Your task to perform on an android device: open the mobile data screen to see how much data has been used Image 0: 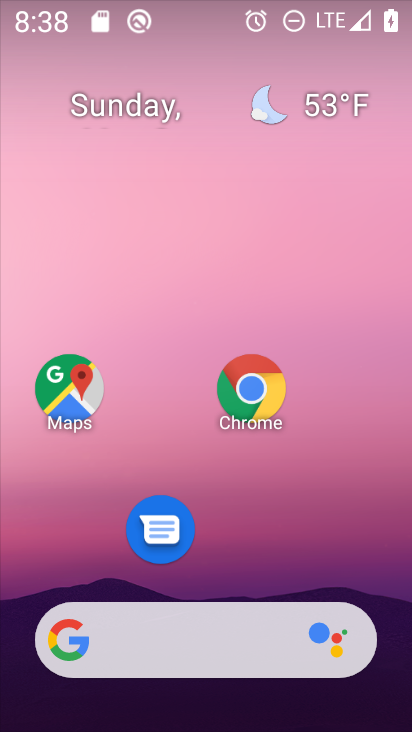
Step 0: drag from (221, 572) to (256, 67)
Your task to perform on an android device: open the mobile data screen to see how much data has been used Image 1: 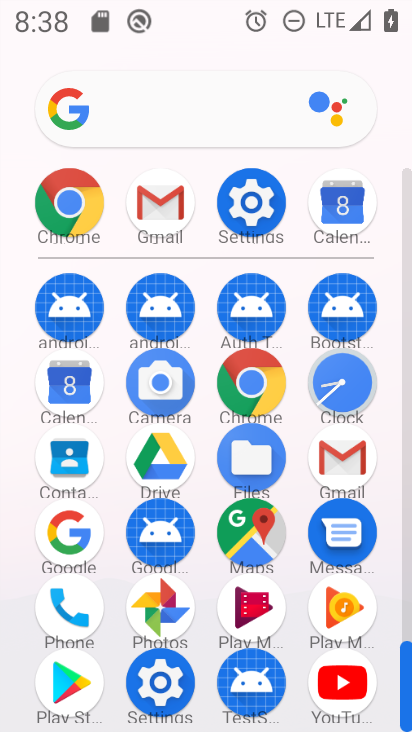
Step 1: click (250, 234)
Your task to perform on an android device: open the mobile data screen to see how much data has been used Image 2: 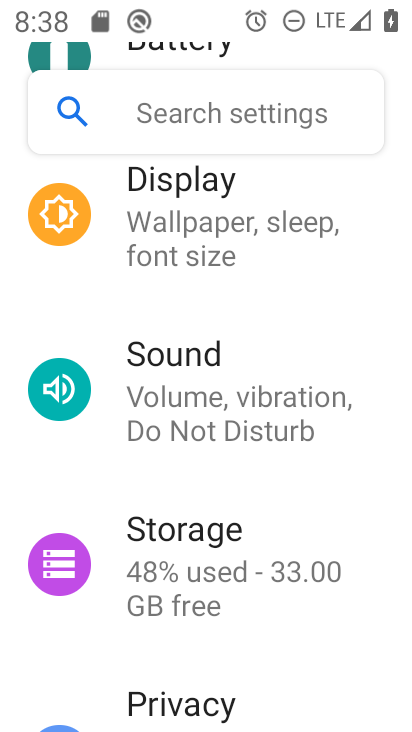
Step 2: drag from (257, 281) to (249, 634)
Your task to perform on an android device: open the mobile data screen to see how much data has been used Image 3: 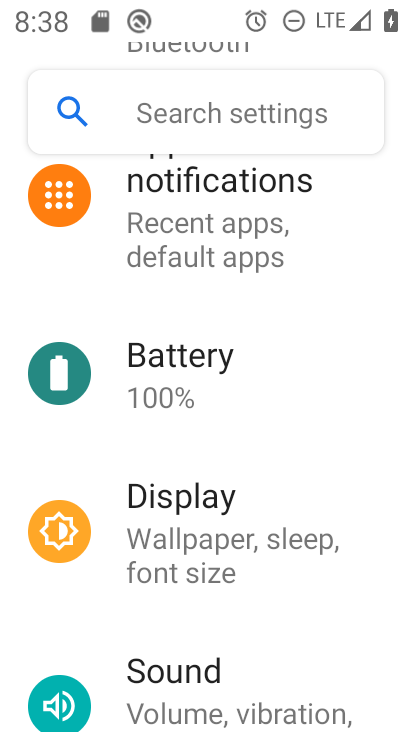
Step 3: drag from (248, 281) to (224, 675)
Your task to perform on an android device: open the mobile data screen to see how much data has been used Image 4: 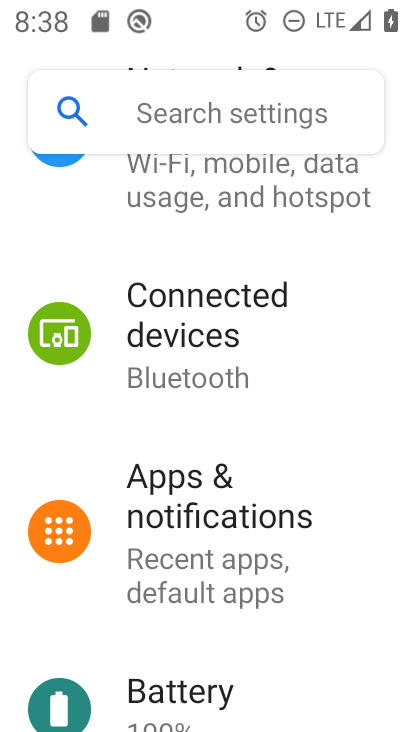
Step 4: click (219, 211)
Your task to perform on an android device: open the mobile data screen to see how much data has been used Image 5: 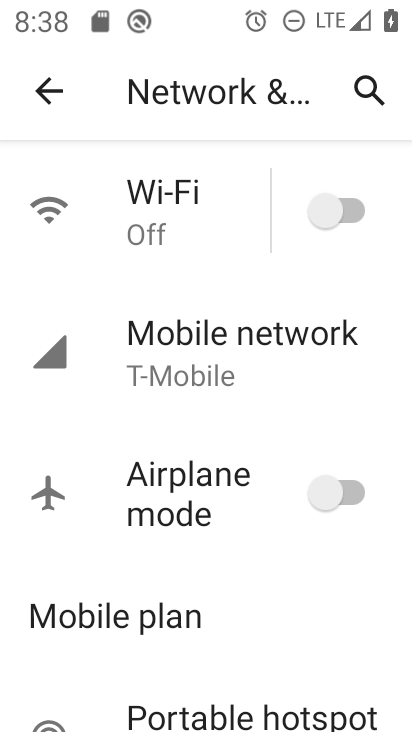
Step 5: click (192, 370)
Your task to perform on an android device: open the mobile data screen to see how much data has been used Image 6: 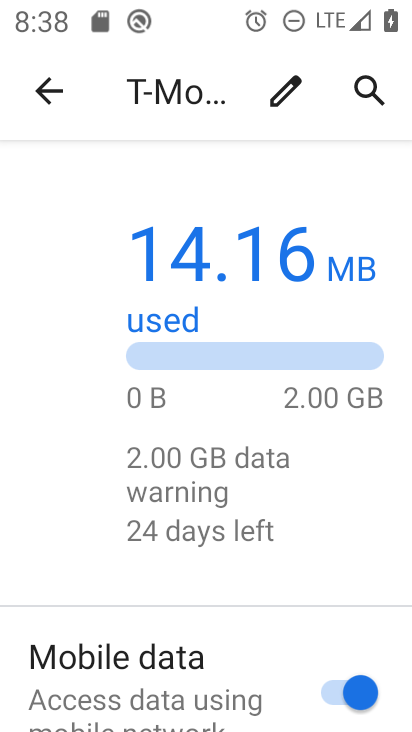
Step 6: drag from (201, 591) to (252, 180)
Your task to perform on an android device: open the mobile data screen to see how much data has been used Image 7: 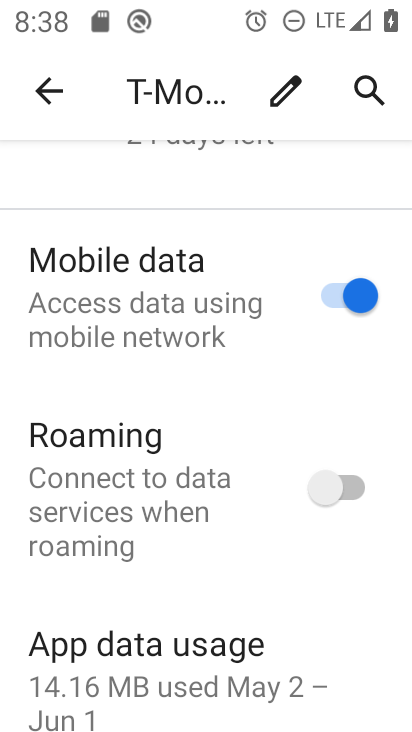
Step 7: drag from (176, 545) to (246, 279)
Your task to perform on an android device: open the mobile data screen to see how much data has been used Image 8: 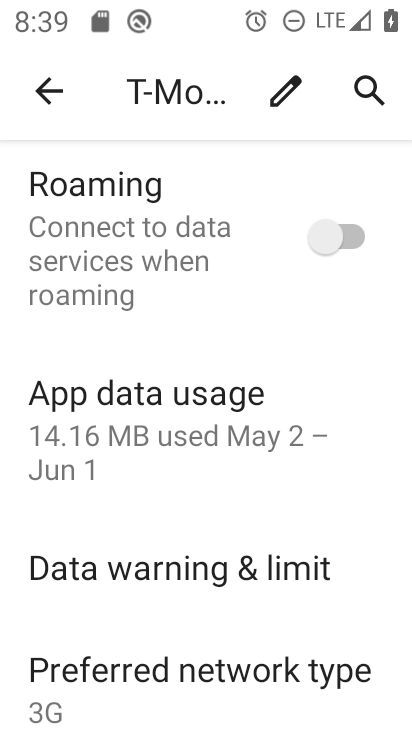
Step 8: click (203, 430)
Your task to perform on an android device: open the mobile data screen to see how much data has been used Image 9: 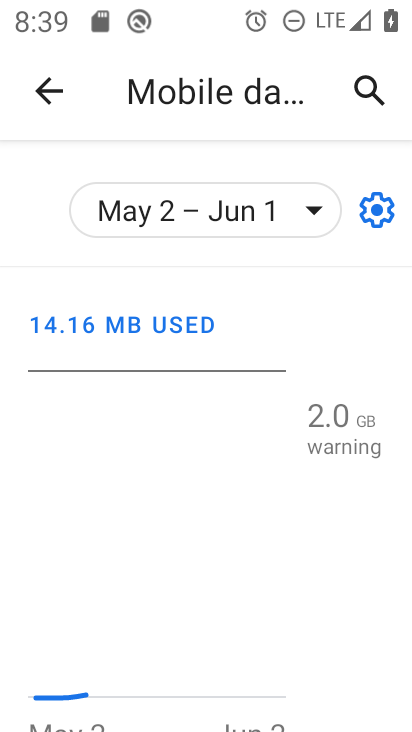
Step 9: task complete